Your task to perform on an android device: turn on airplane mode Image 0: 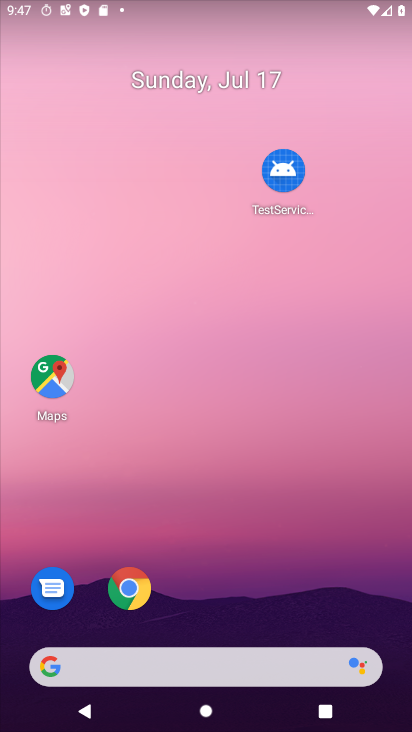
Step 0: drag from (216, 609) to (331, 70)
Your task to perform on an android device: turn on airplane mode Image 1: 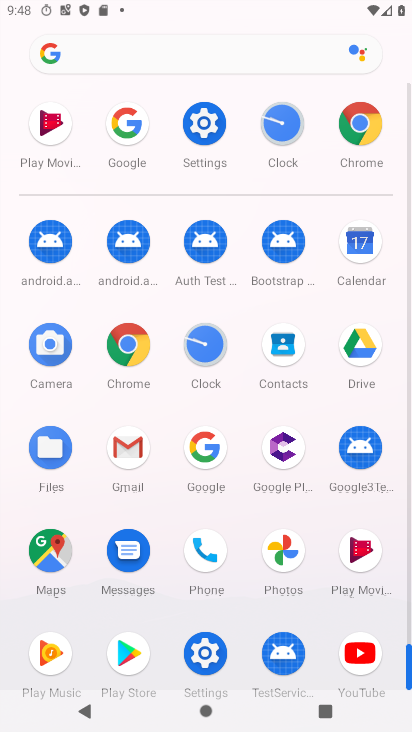
Step 1: click (198, 131)
Your task to perform on an android device: turn on airplane mode Image 2: 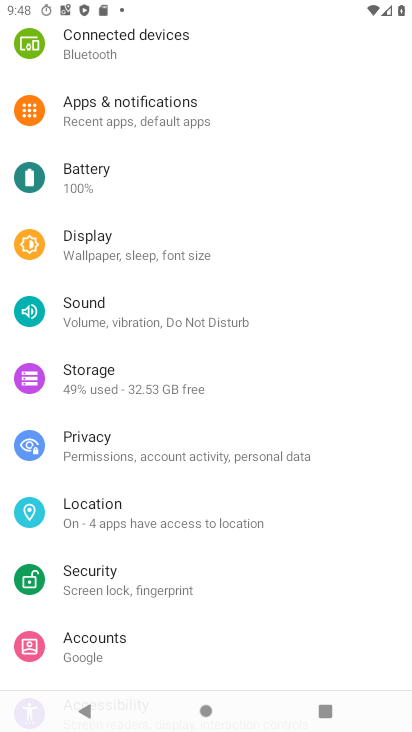
Step 2: drag from (196, 176) to (196, 536)
Your task to perform on an android device: turn on airplane mode Image 3: 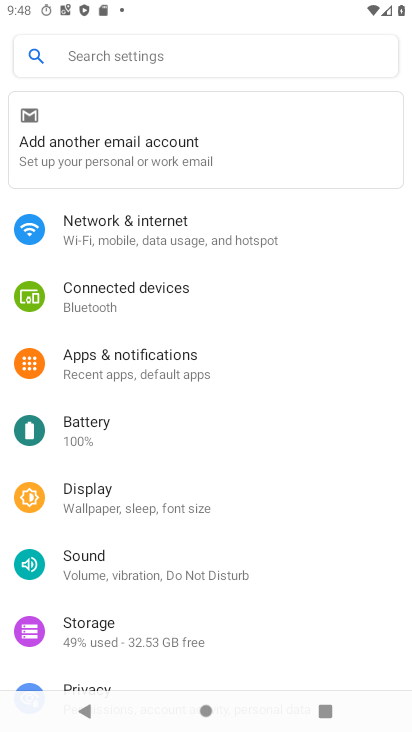
Step 3: click (185, 235)
Your task to perform on an android device: turn on airplane mode Image 4: 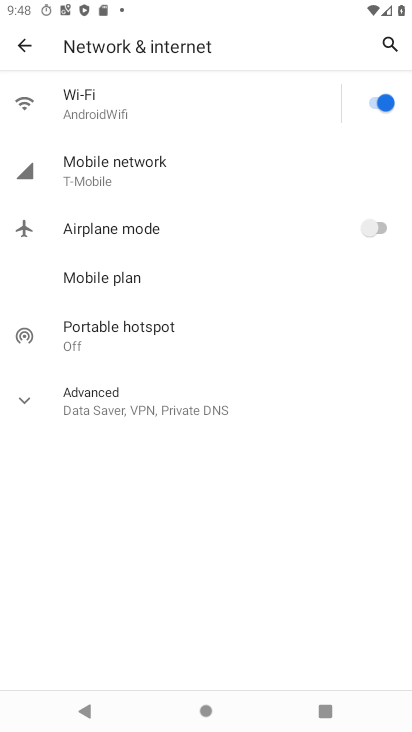
Step 4: click (185, 234)
Your task to perform on an android device: turn on airplane mode Image 5: 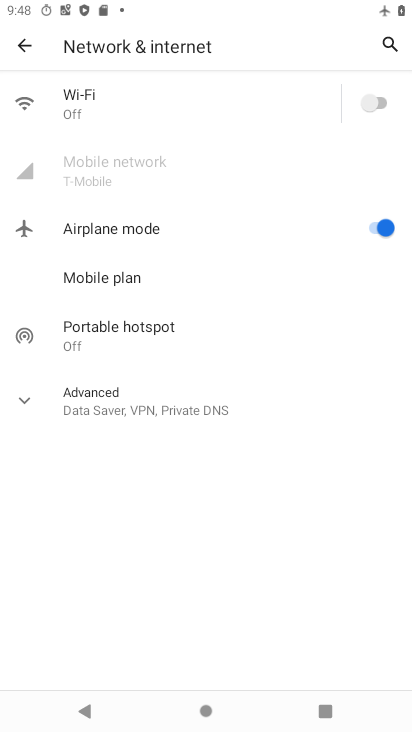
Step 5: task complete